Your task to perform on an android device: choose inbox layout in the gmail app Image 0: 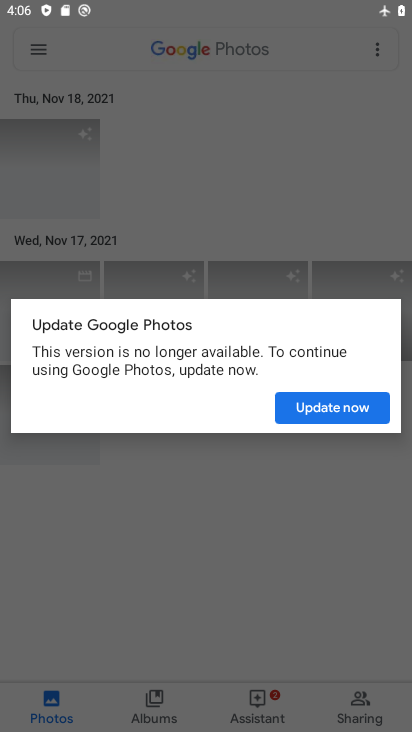
Step 0: press home button
Your task to perform on an android device: choose inbox layout in the gmail app Image 1: 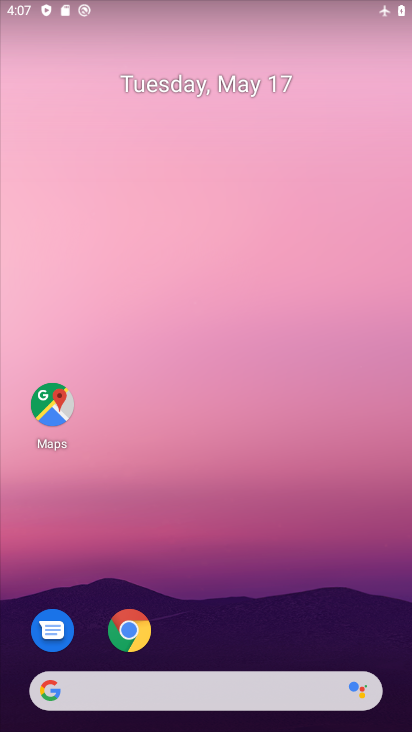
Step 1: drag from (215, 726) to (259, 247)
Your task to perform on an android device: choose inbox layout in the gmail app Image 2: 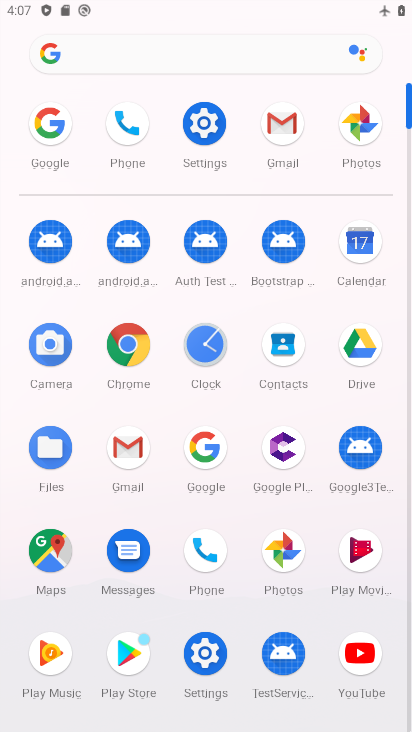
Step 2: click (128, 448)
Your task to perform on an android device: choose inbox layout in the gmail app Image 3: 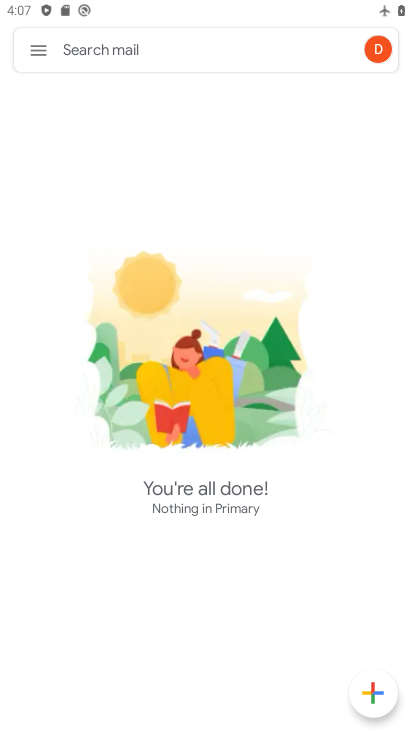
Step 3: click (37, 47)
Your task to perform on an android device: choose inbox layout in the gmail app Image 4: 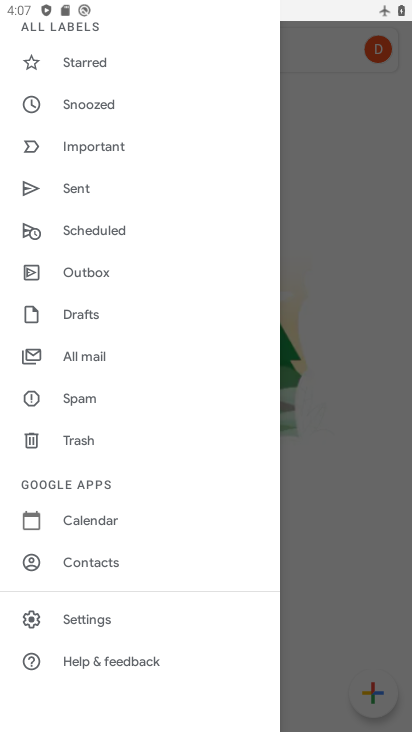
Step 4: click (85, 619)
Your task to perform on an android device: choose inbox layout in the gmail app Image 5: 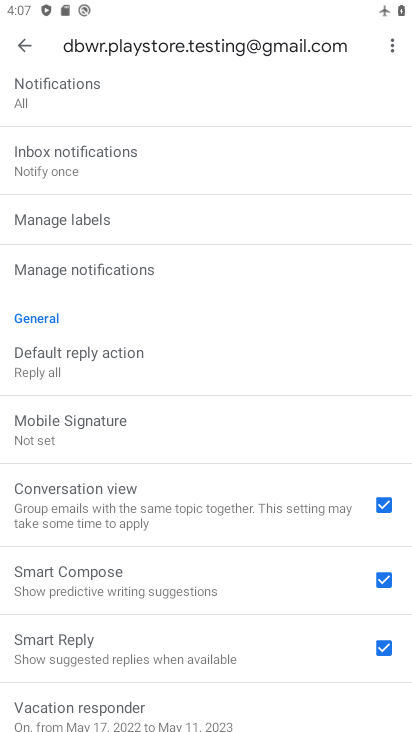
Step 5: drag from (133, 510) to (130, 603)
Your task to perform on an android device: choose inbox layout in the gmail app Image 6: 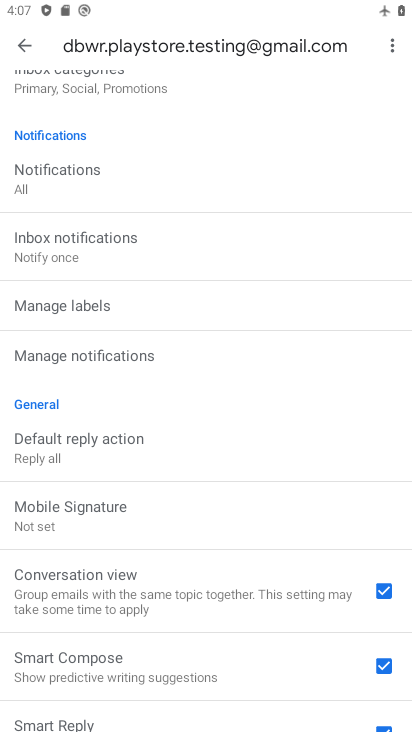
Step 6: drag from (139, 142) to (137, 526)
Your task to perform on an android device: choose inbox layout in the gmail app Image 7: 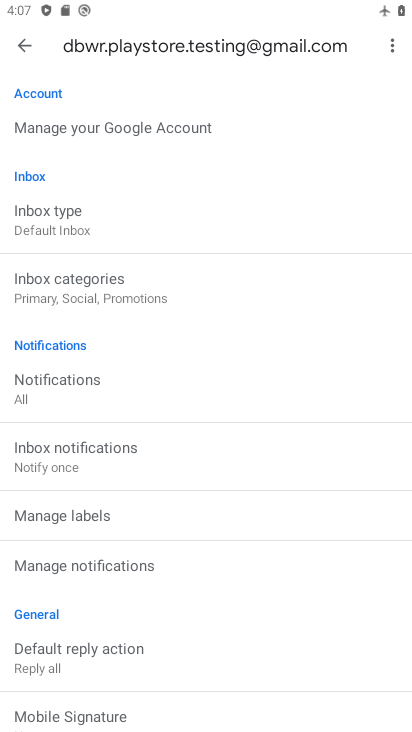
Step 7: drag from (182, 156) to (192, 550)
Your task to perform on an android device: choose inbox layout in the gmail app Image 8: 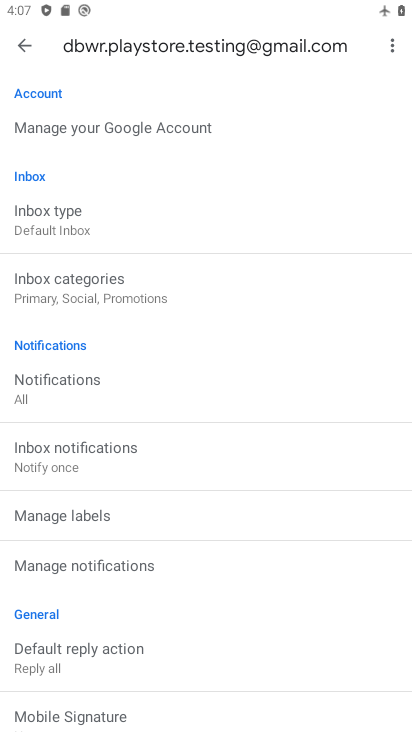
Step 8: click (60, 221)
Your task to perform on an android device: choose inbox layout in the gmail app Image 9: 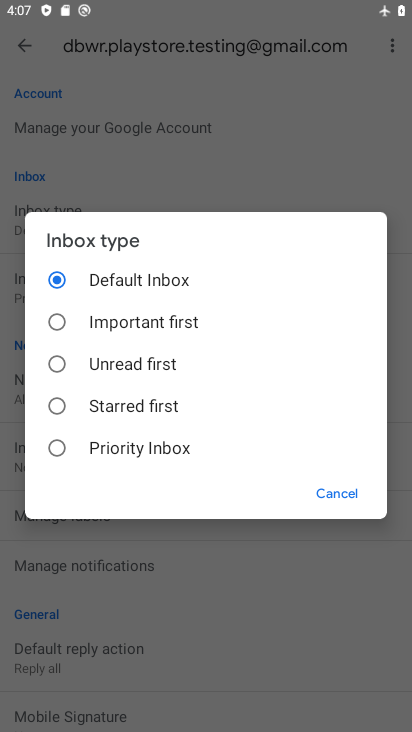
Step 9: click (54, 320)
Your task to perform on an android device: choose inbox layout in the gmail app Image 10: 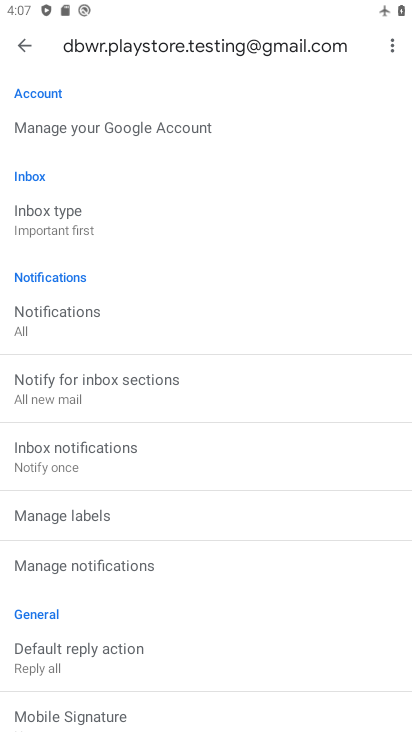
Step 10: task complete